Your task to perform on an android device: turn on bluetooth scan Image 0: 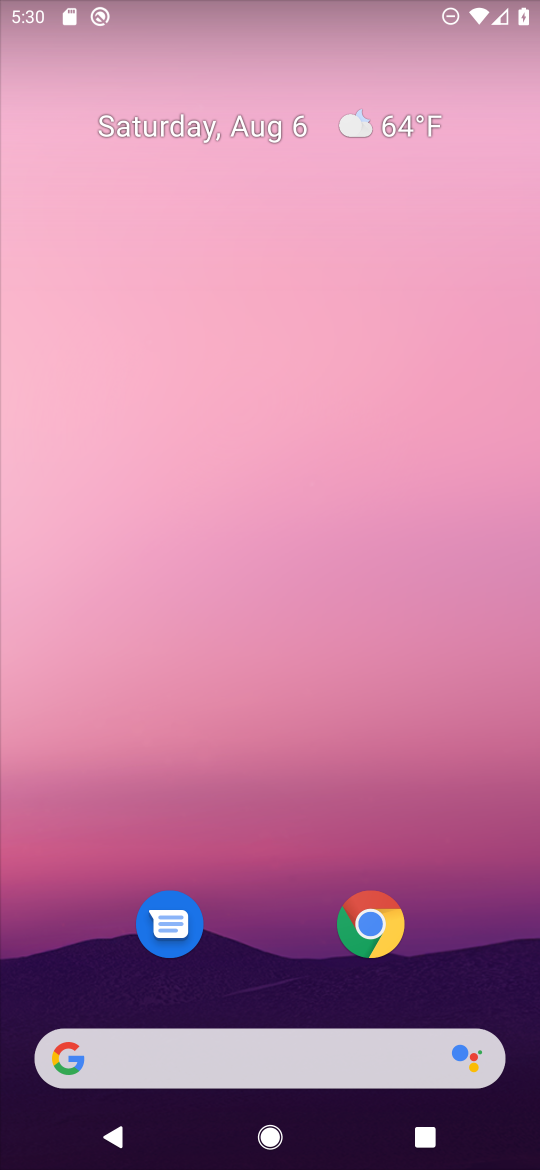
Step 0: drag from (244, 860) to (242, 166)
Your task to perform on an android device: turn on bluetooth scan Image 1: 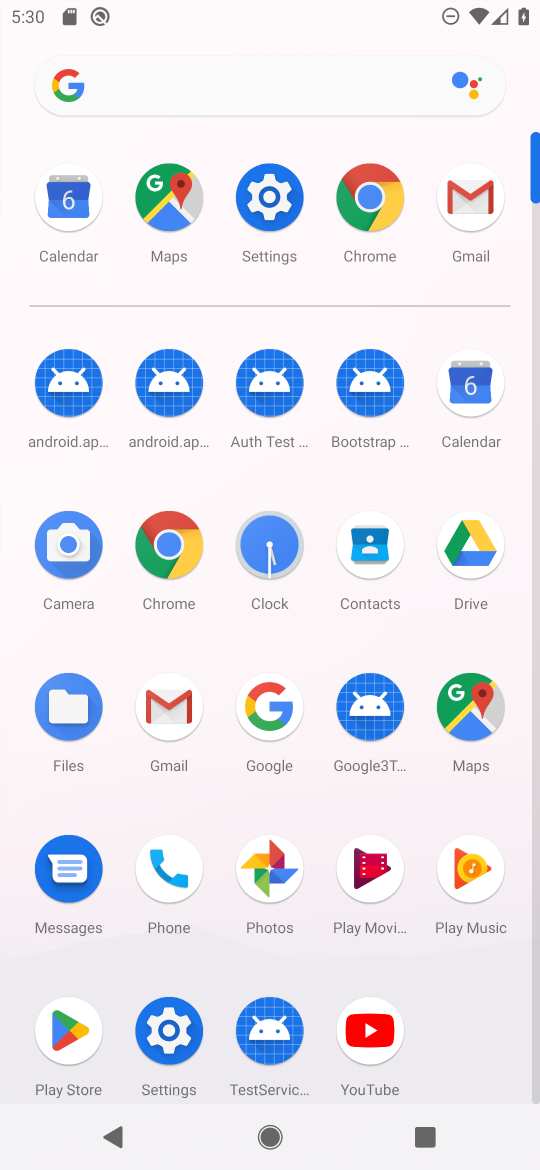
Step 1: click (263, 194)
Your task to perform on an android device: turn on bluetooth scan Image 2: 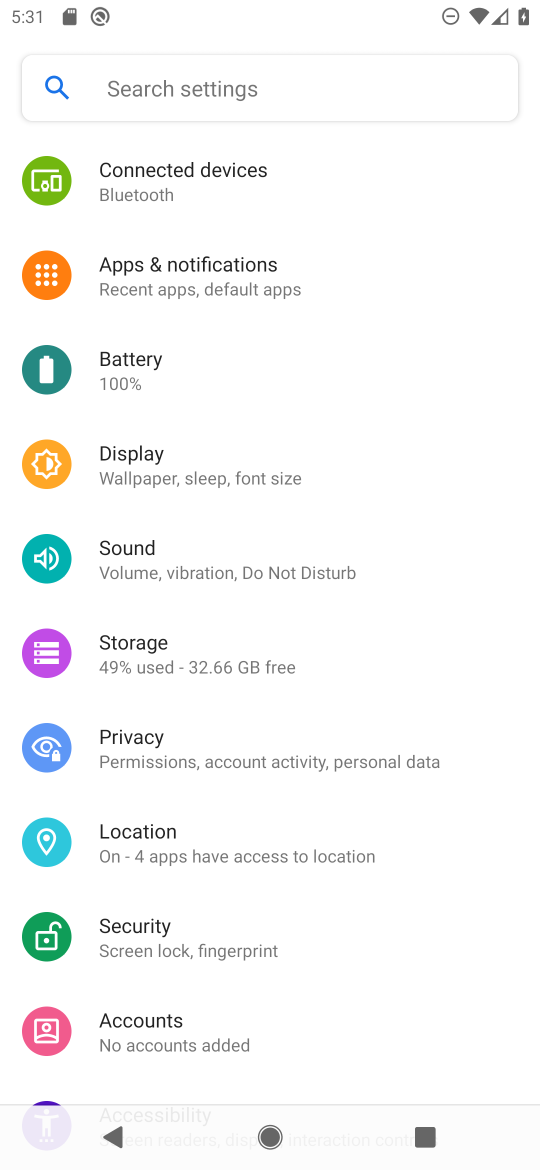
Step 2: click (152, 825)
Your task to perform on an android device: turn on bluetooth scan Image 3: 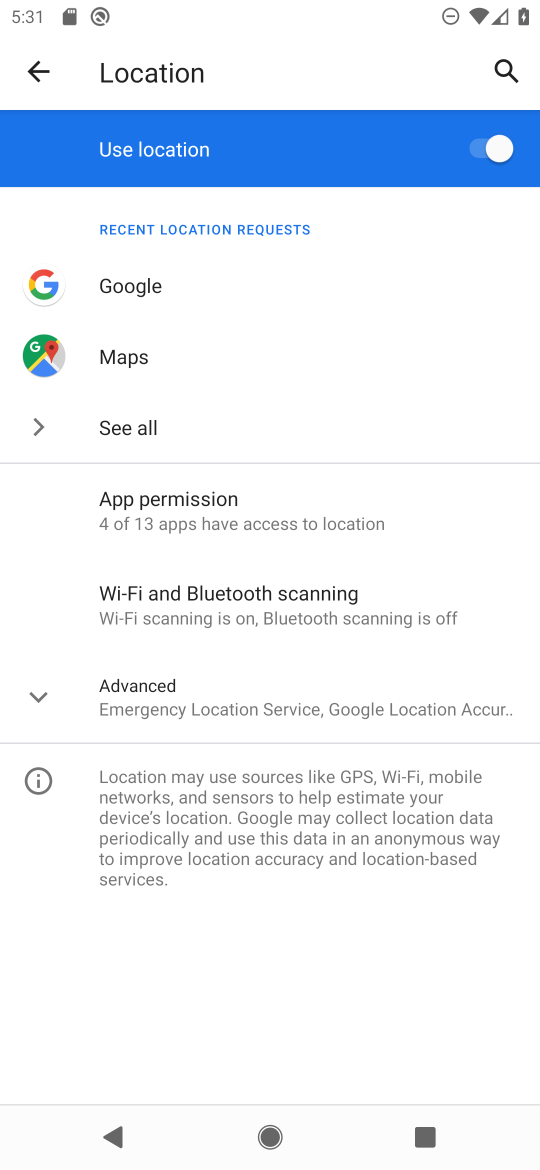
Step 3: click (38, 691)
Your task to perform on an android device: turn on bluetooth scan Image 4: 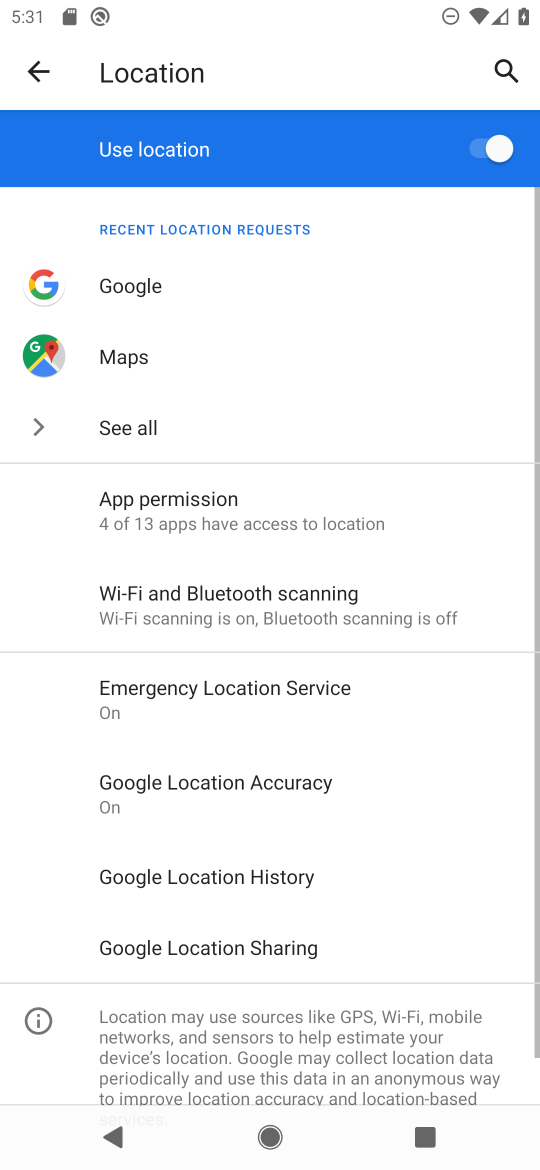
Step 4: click (220, 587)
Your task to perform on an android device: turn on bluetooth scan Image 5: 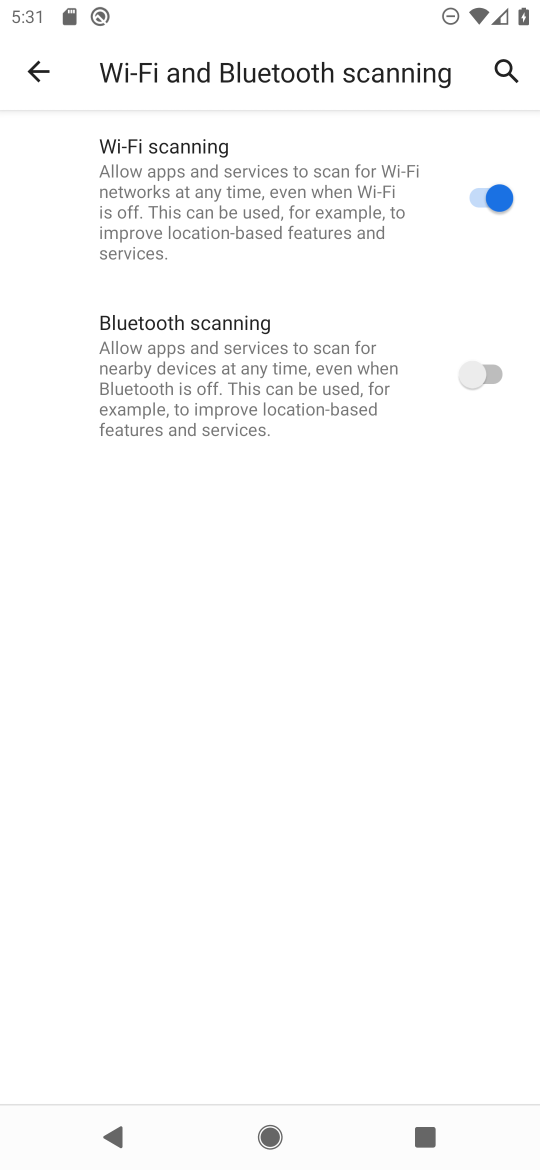
Step 5: click (480, 368)
Your task to perform on an android device: turn on bluetooth scan Image 6: 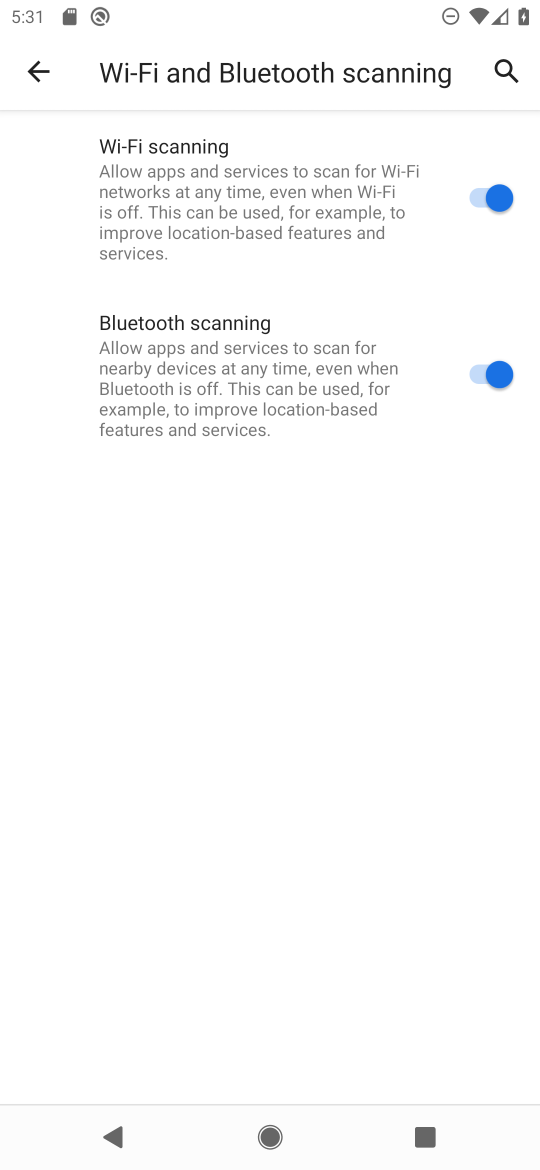
Step 6: task complete